Your task to perform on an android device: Open Amazon Image 0: 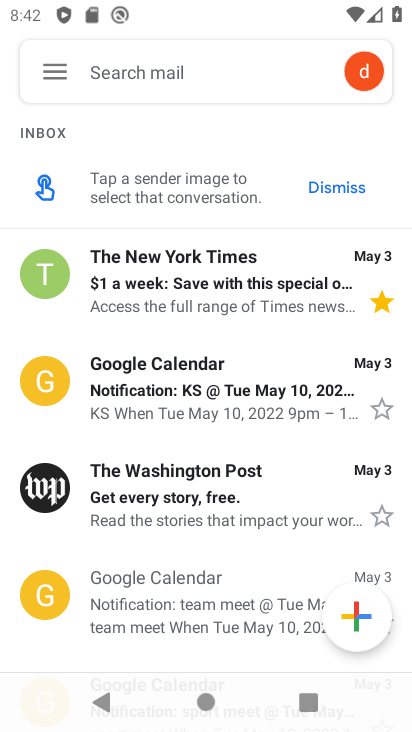
Step 0: press home button
Your task to perform on an android device: Open Amazon Image 1: 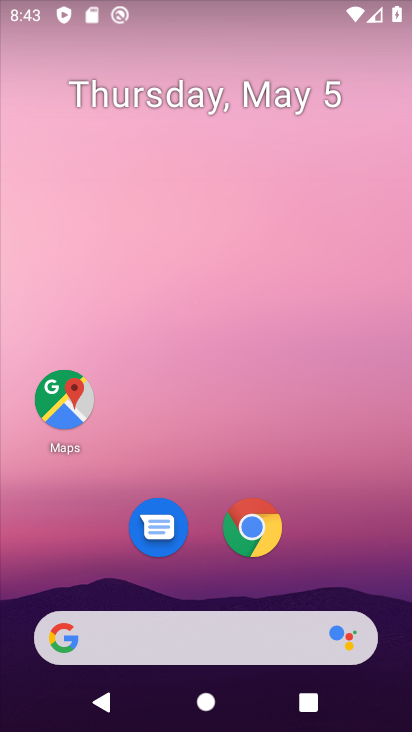
Step 1: drag from (346, 570) to (210, 105)
Your task to perform on an android device: Open Amazon Image 2: 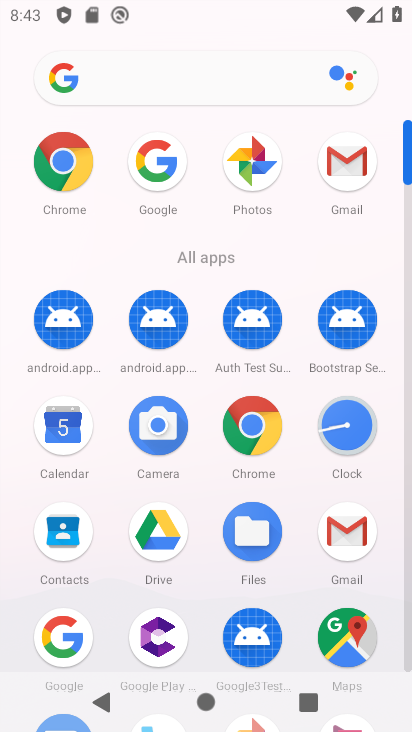
Step 2: click (61, 167)
Your task to perform on an android device: Open Amazon Image 3: 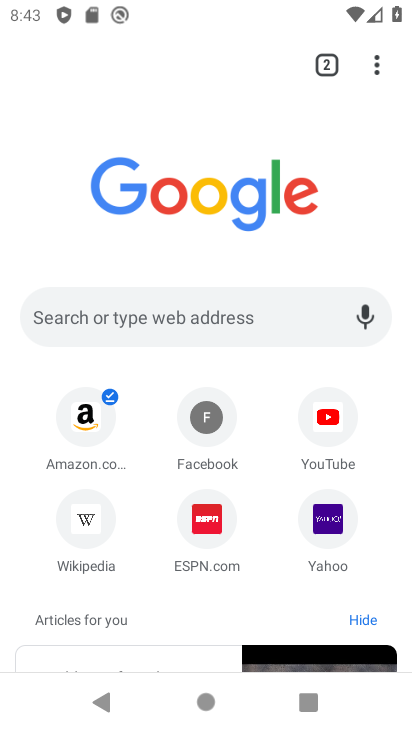
Step 3: click (83, 430)
Your task to perform on an android device: Open Amazon Image 4: 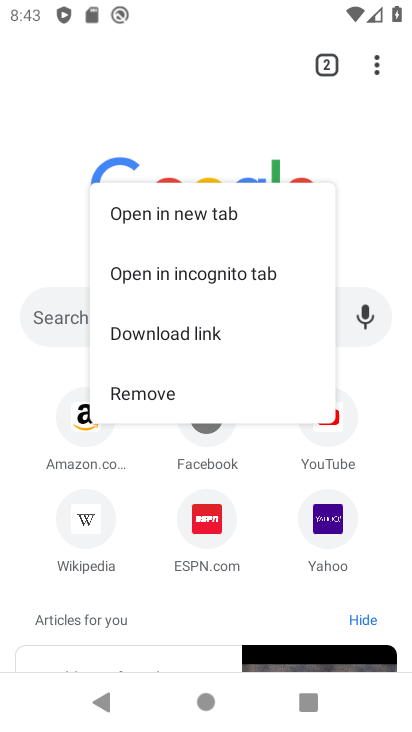
Step 4: click (78, 424)
Your task to perform on an android device: Open Amazon Image 5: 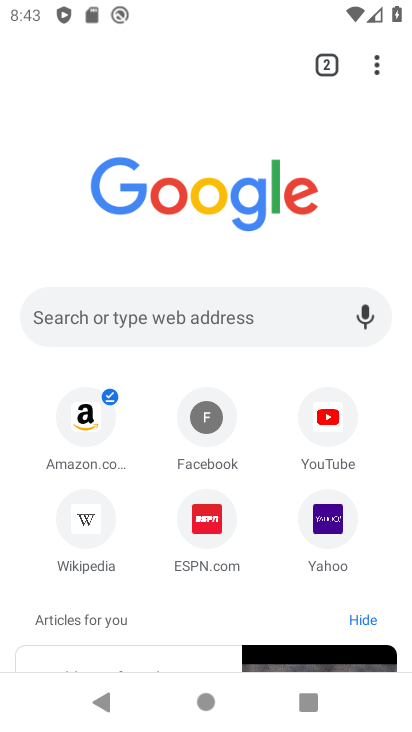
Step 5: click (78, 424)
Your task to perform on an android device: Open Amazon Image 6: 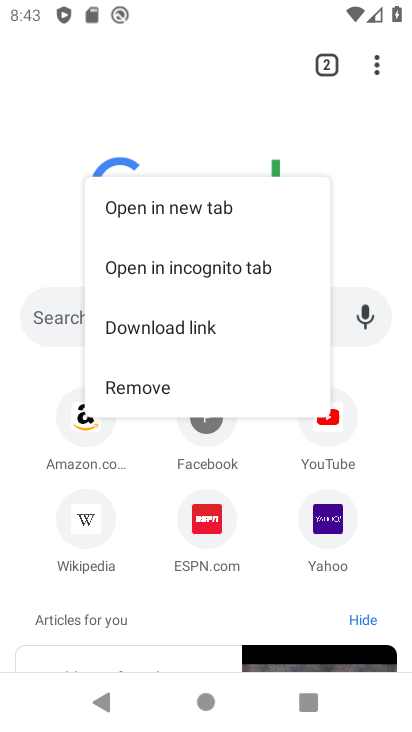
Step 6: click (79, 424)
Your task to perform on an android device: Open Amazon Image 7: 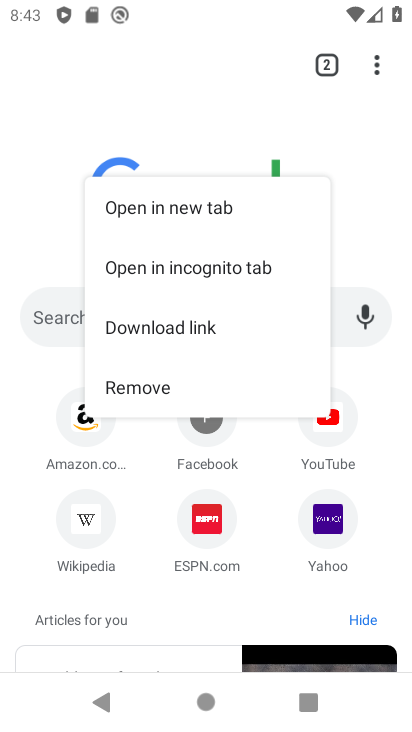
Step 7: click (85, 420)
Your task to perform on an android device: Open Amazon Image 8: 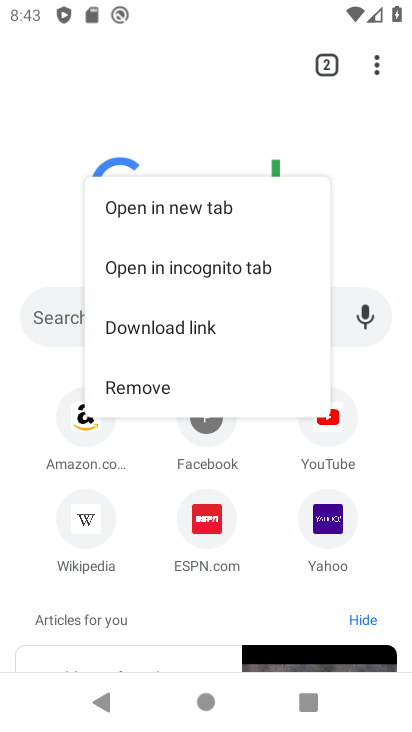
Step 8: click (85, 420)
Your task to perform on an android device: Open Amazon Image 9: 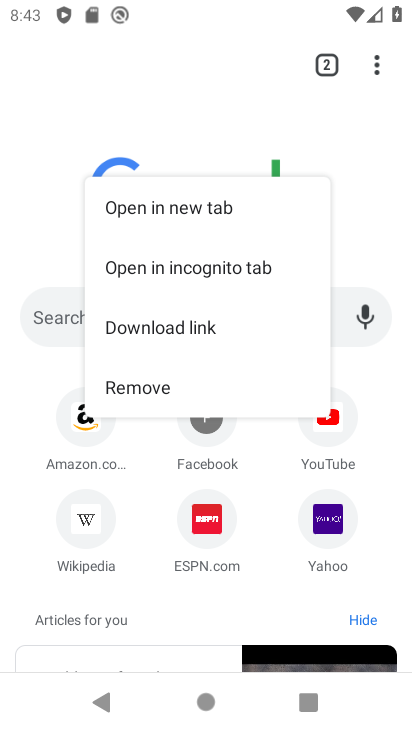
Step 9: click (85, 452)
Your task to perform on an android device: Open Amazon Image 10: 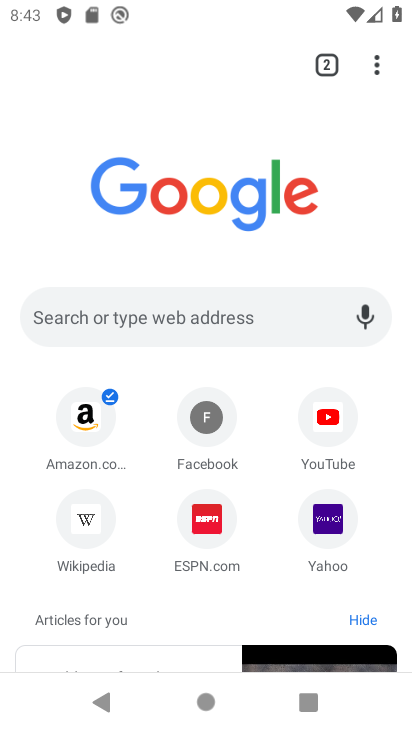
Step 10: click (75, 358)
Your task to perform on an android device: Open Amazon Image 11: 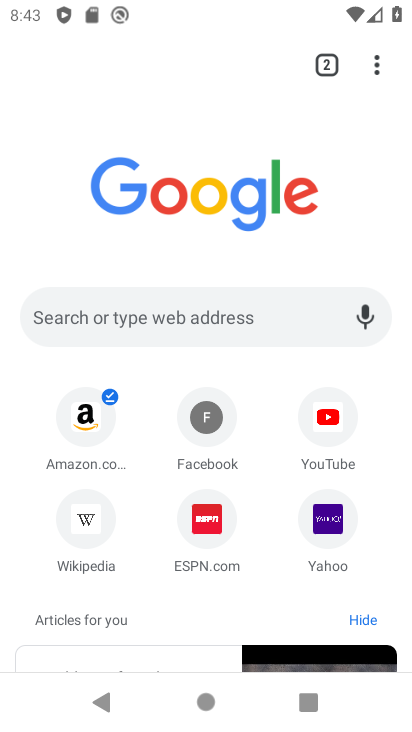
Step 11: click (87, 408)
Your task to perform on an android device: Open Amazon Image 12: 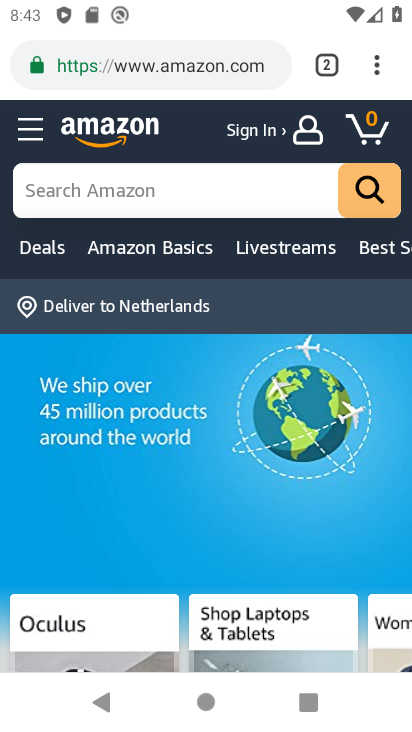
Step 12: task complete